Your task to perform on an android device: find which apps use the phone's location Image 0: 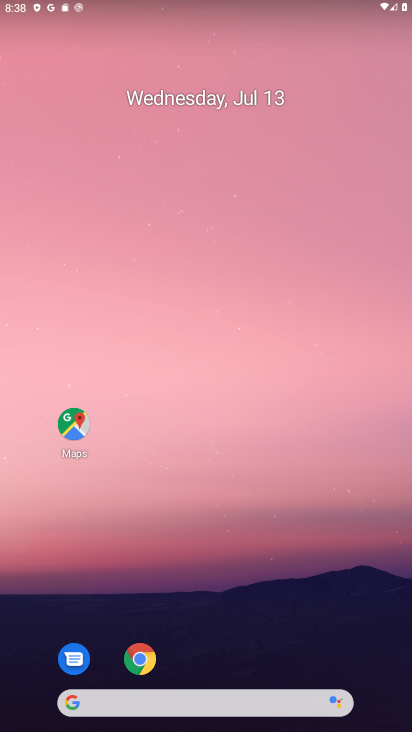
Step 0: drag from (256, 665) to (165, 145)
Your task to perform on an android device: find which apps use the phone's location Image 1: 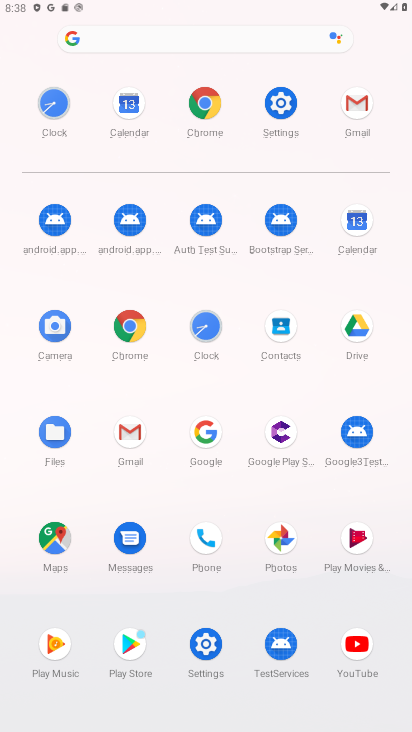
Step 1: click (256, 90)
Your task to perform on an android device: find which apps use the phone's location Image 2: 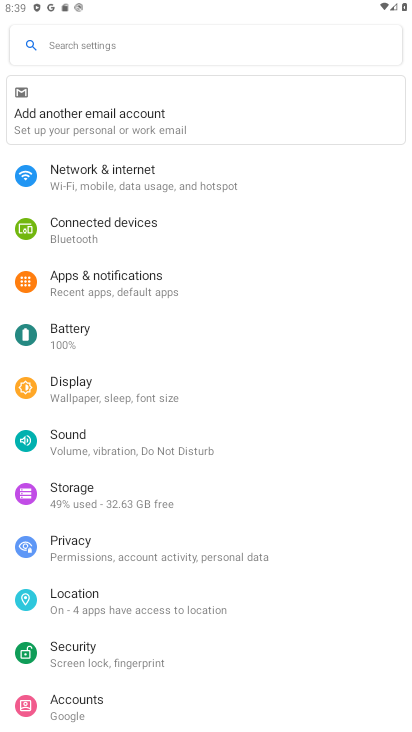
Step 2: click (107, 585)
Your task to perform on an android device: find which apps use the phone's location Image 3: 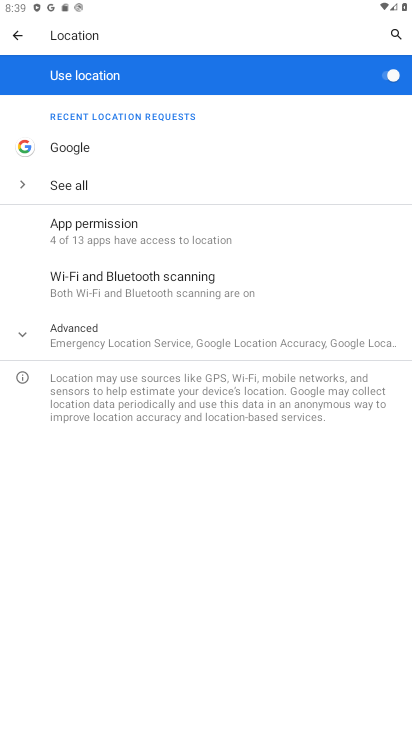
Step 3: task complete